Your task to perform on an android device: Open wifi settings Image 0: 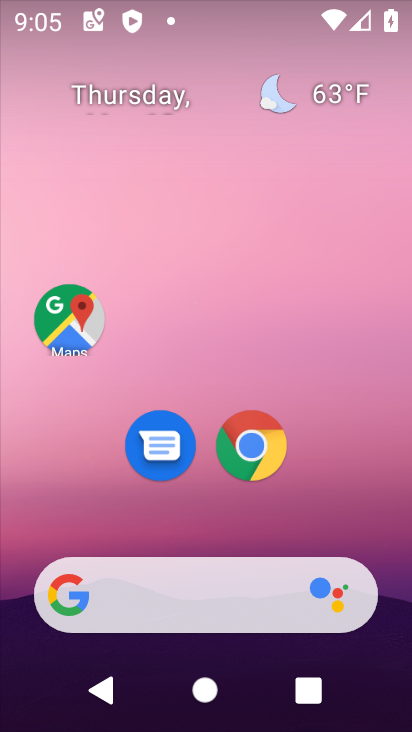
Step 0: click (322, 277)
Your task to perform on an android device: Open wifi settings Image 1: 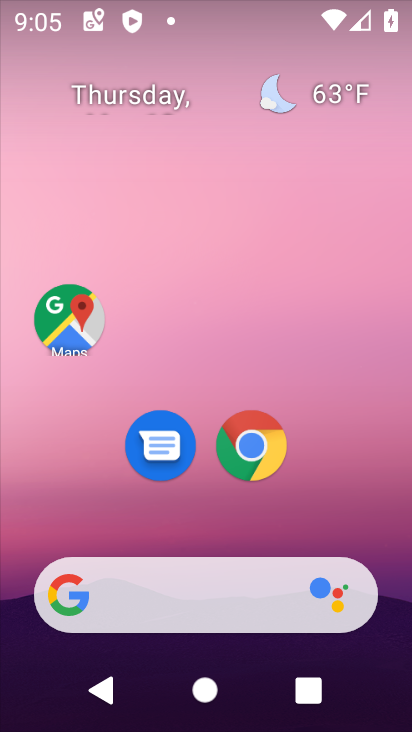
Step 1: drag from (223, 519) to (271, 18)
Your task to perform on an android device: Open wifi settings Image 2: 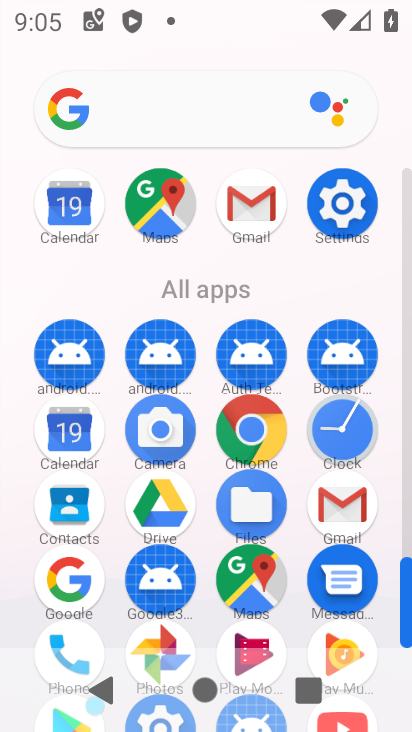
Step 2: click (350, 196)
Your task to perform on an android device: Open wifi settings Image 3: 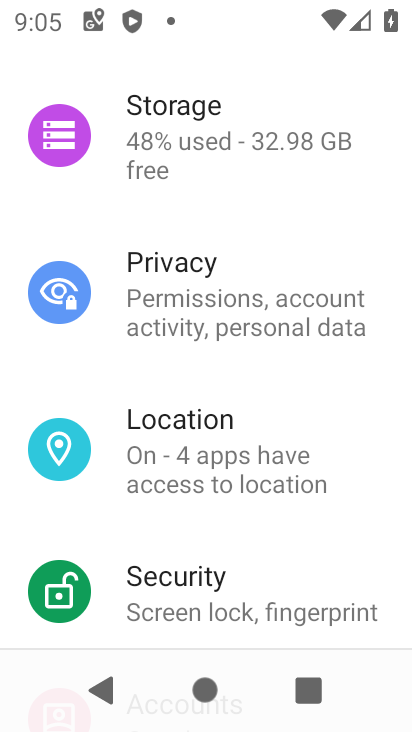
Step 3: drag from (222, 501) to (227, 663)
Your task to perform on an android device: Open wifi settings Image 4: 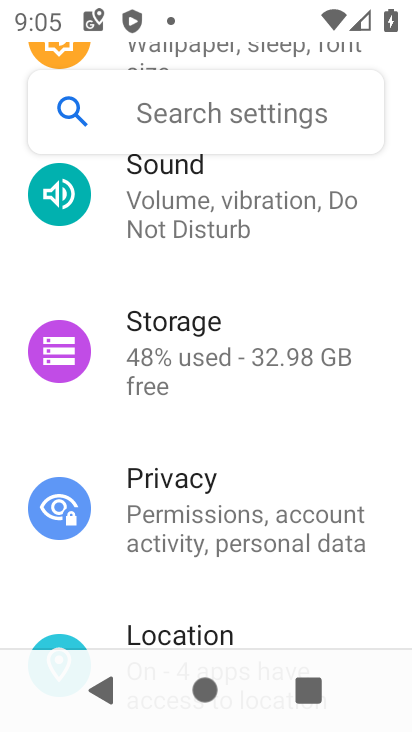
Step 4: drag from (232, 261) to (218, 623)
Your task to perform on an android device: Open wifi settings Image 5: 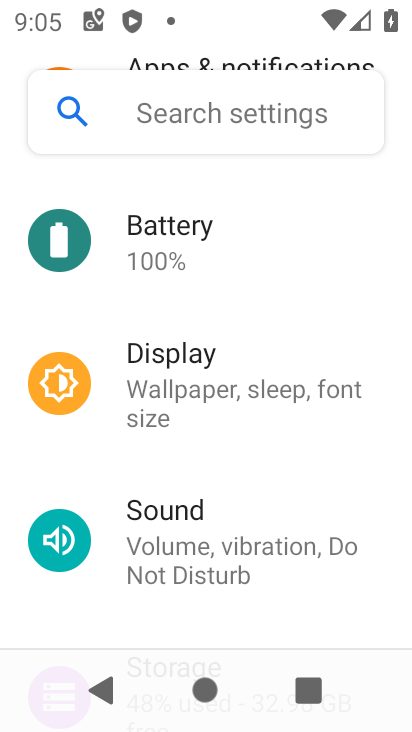
Step 5: drag from (259, 395) to (201, 727)
Your task to perform on an android device: Open wifi settings Image 6: 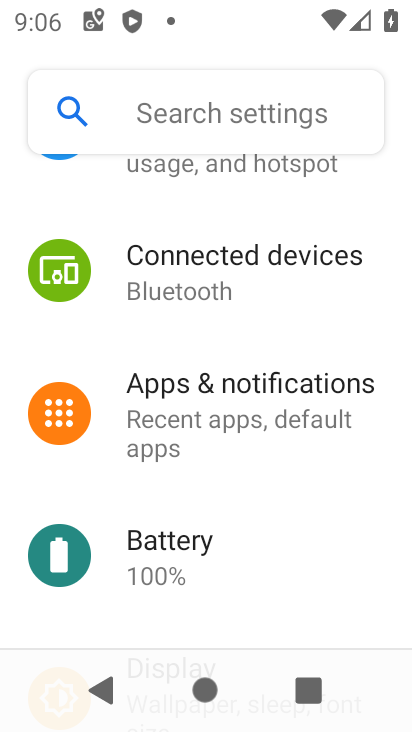
Step 6: drag from (216, 241) to (193, 566)
Your task to perform on an android device: Open wifi settings Image 7: 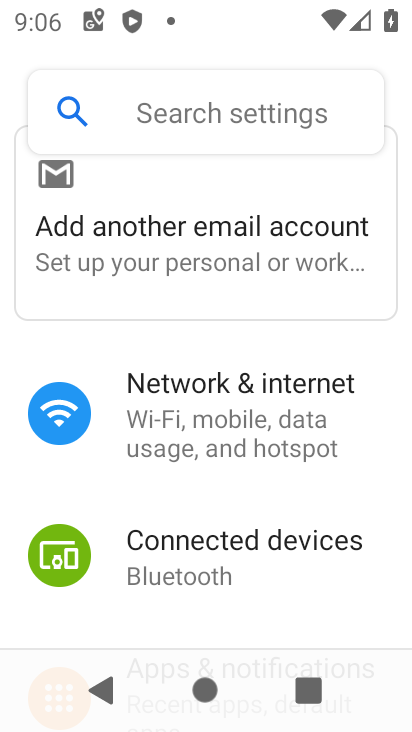
Step 7: click (234, 411)
Your task to perform on an android device: Open wifi settings Image 8: 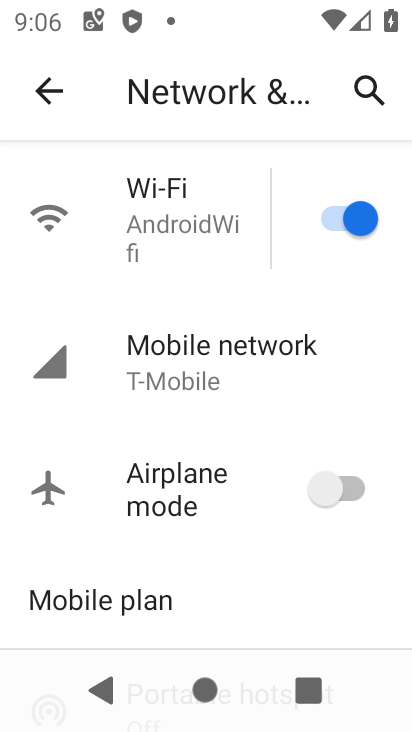
Step 8: task complete